Your task to perform on an android device: Go to wifi settings Image 0: 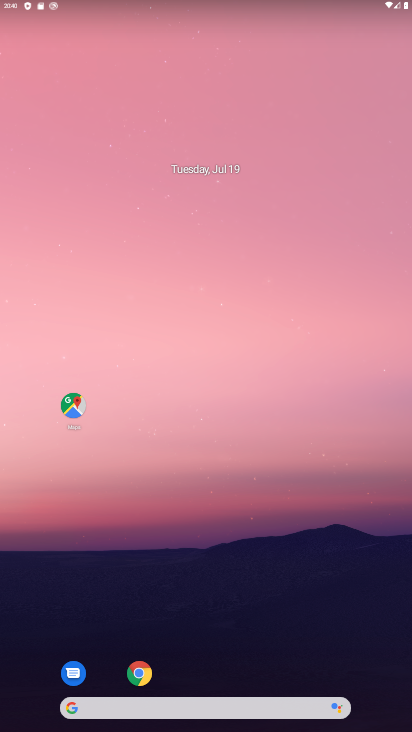
Step 0: drag from (247, 664) to (348, 9)
Your task to perform on an android device: Go to wifi settings Image 1: 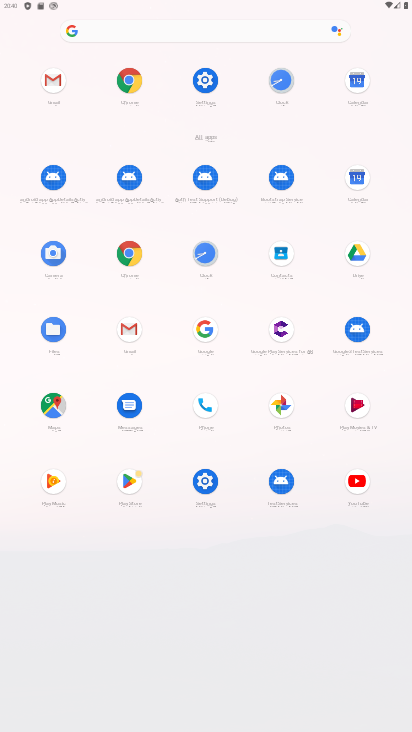
Step 1: click (205, 486)
Your task to perform on an android device: Go to wifi settings Image 2: 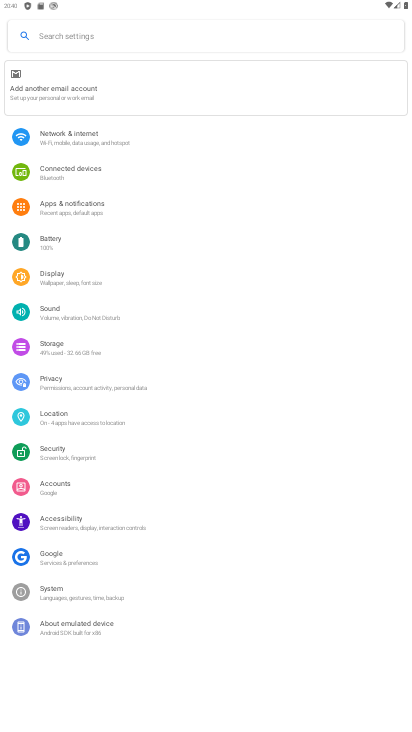
Step 2: click (90, 139)
Your task to perform on an android device: Go to wifi settings Image 3: 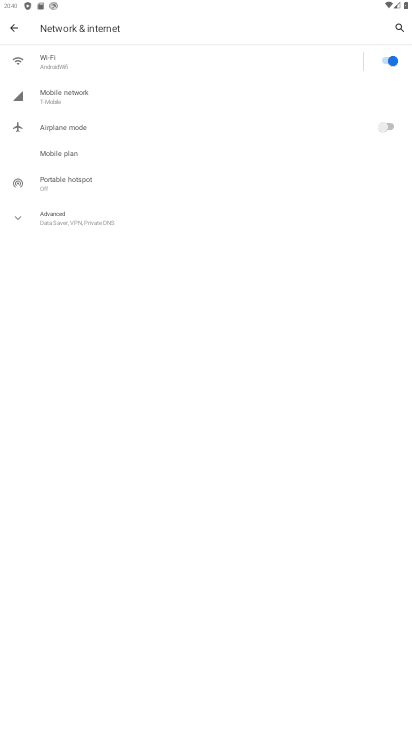
Step 3: click (93, 56)
Your task to perform on an android device: Go to wifi settings Image 4: 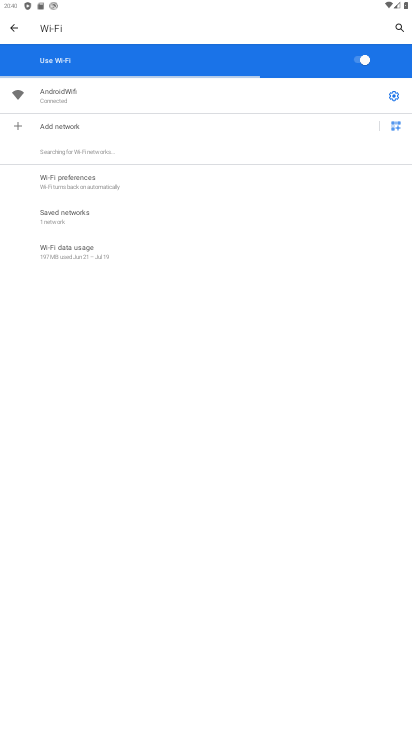
Step 4: task complete